Your task to perform on an android device: Open ESPN.com Image 0: 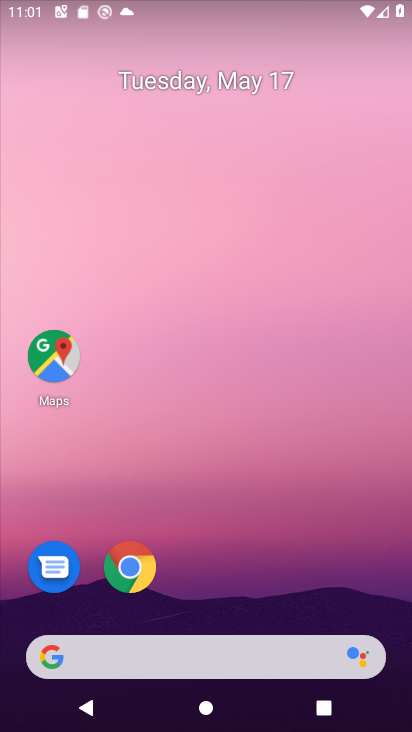
Step 0: click (131, 548)
Your task to perform on an android device: Open ESPN.com Image 1: 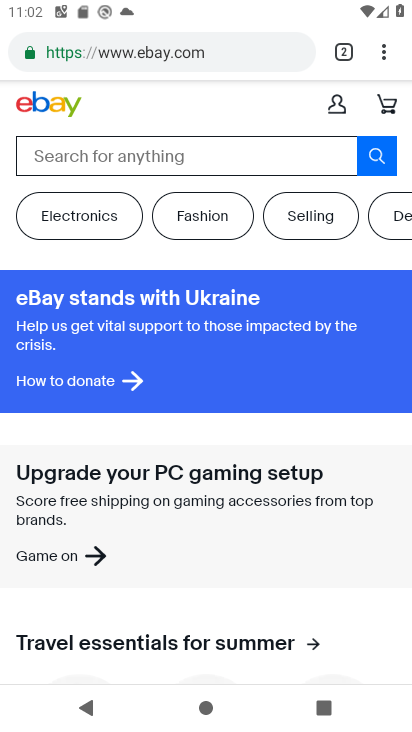
Step 1: click (343, 56)
Your task to perform on an android device: Open ESPN.com Image 2: 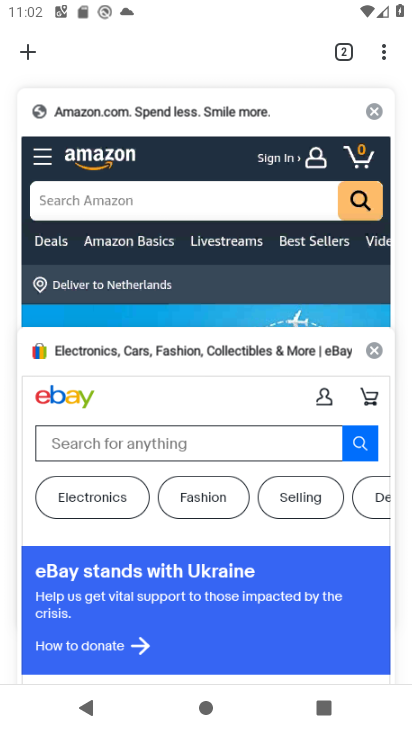
Step 2: click (32, 51)
Your task to perform on an android device: Open ESPN.com Image 3: 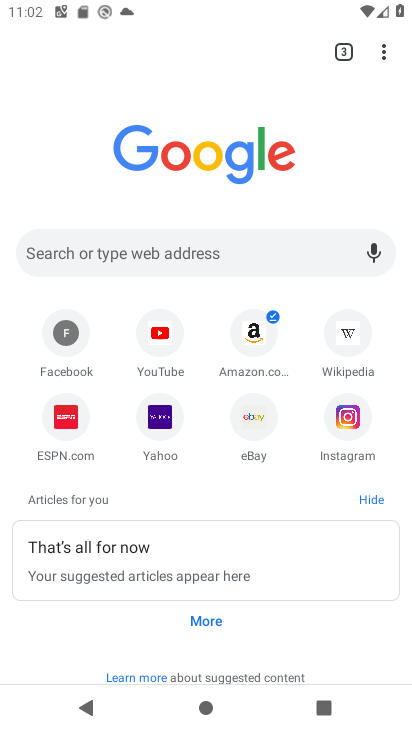
Step 3: click (59, 414)
Your task to perform on an android device: Open ESPN.com Image 4: 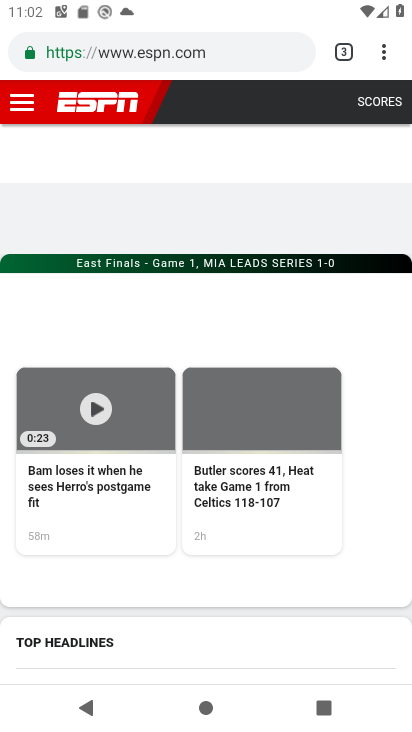
Step 4: task complete